Your task to perform on an android device: Open Google Maps Image 0: 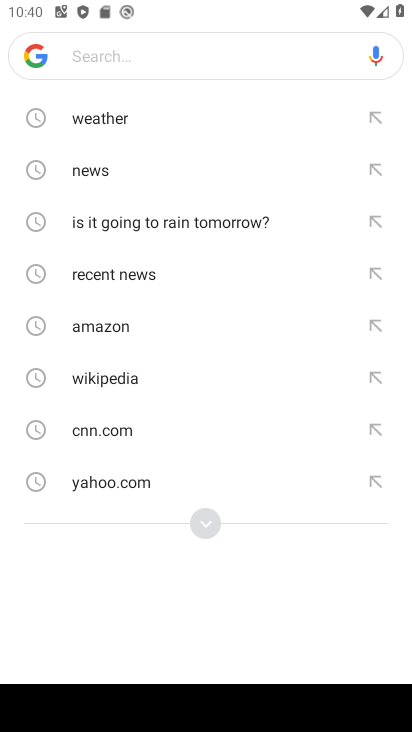
Step 0: press home button
Your task to perform on an android device: Open Google Maps Image 1: 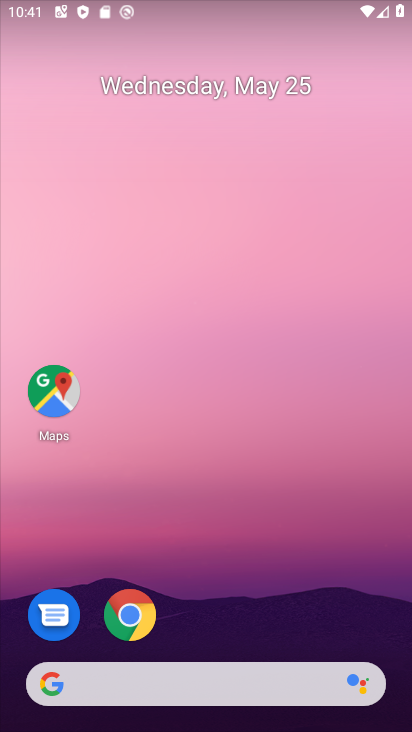
Step 1: click (50, 385)
Your task to perform on an android device: Open Google Maps Image 2: 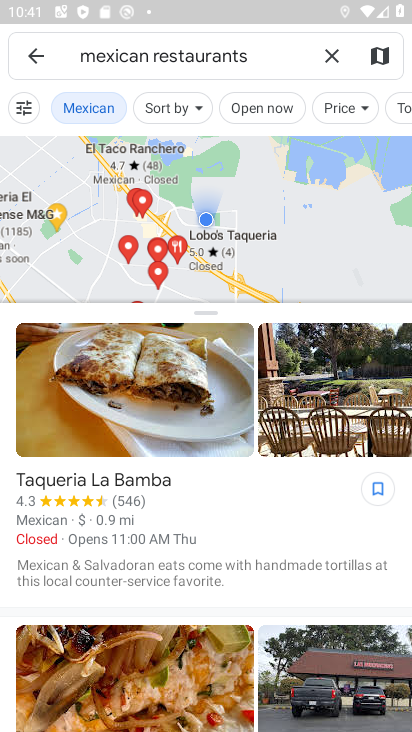
Step 2: click (336, 58)
Your task to perform on an android device: Open Google Maps Image 3: 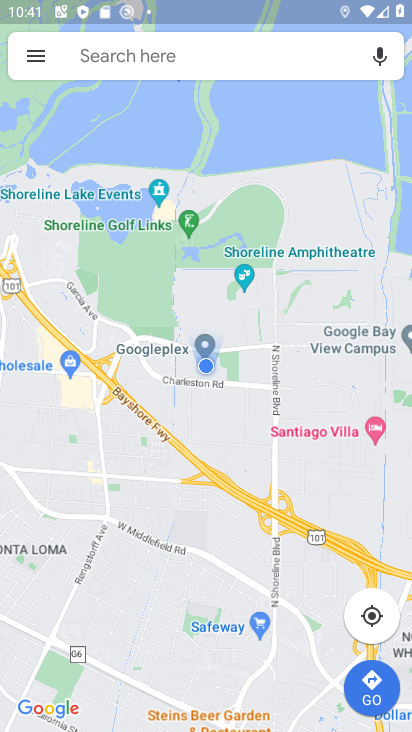
Step 3: task complete